Your task to perform on an android device: Search for a 36" x 48" whiteboard on Home Depot Image 0: 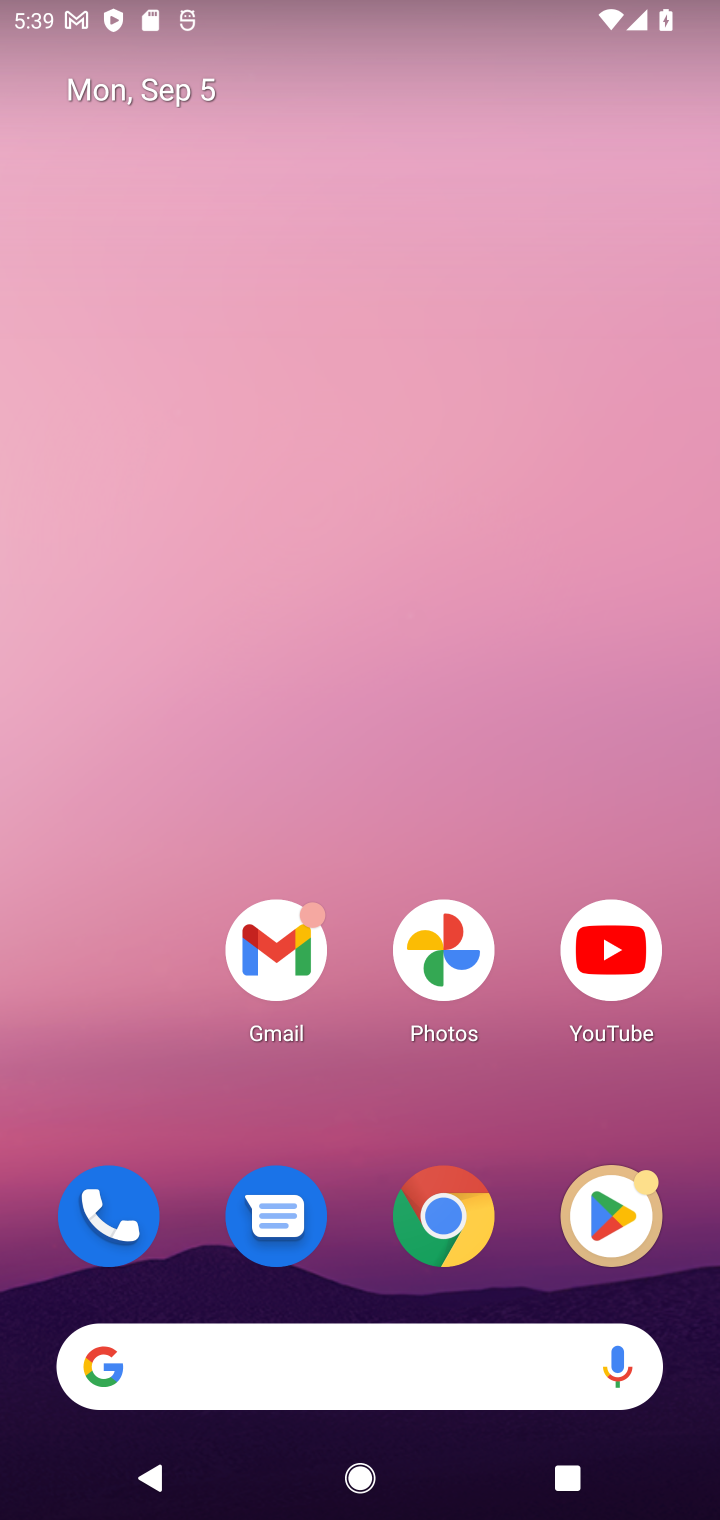
Step 0: click (462, 1183)
Your task to perform on an android device: Search for a 36" x 48" whiteboard on Home Depot Image 1: 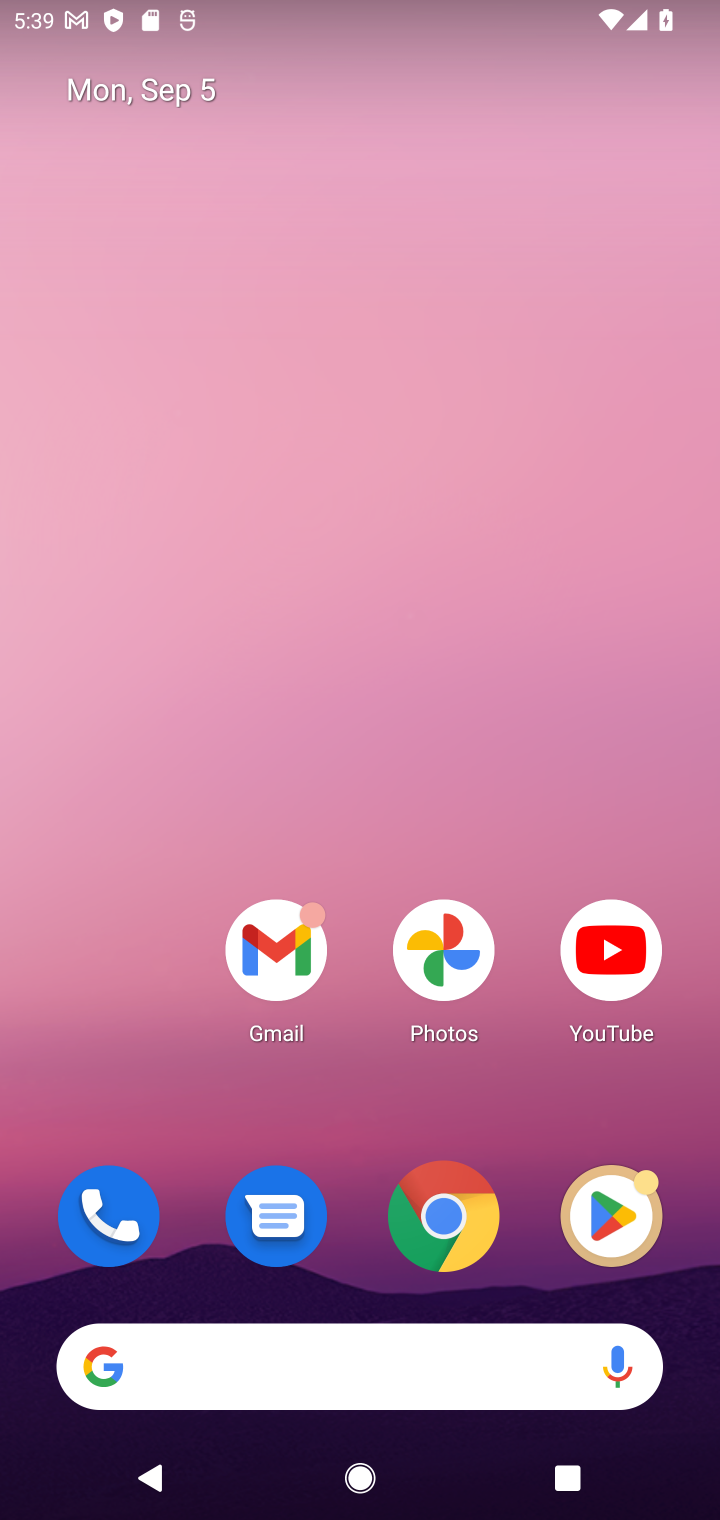
Step 1: click (445, 1209)
Your task to perform on an android device: Search for a 36" x 48" whiteboard on Home Depot Image 2: 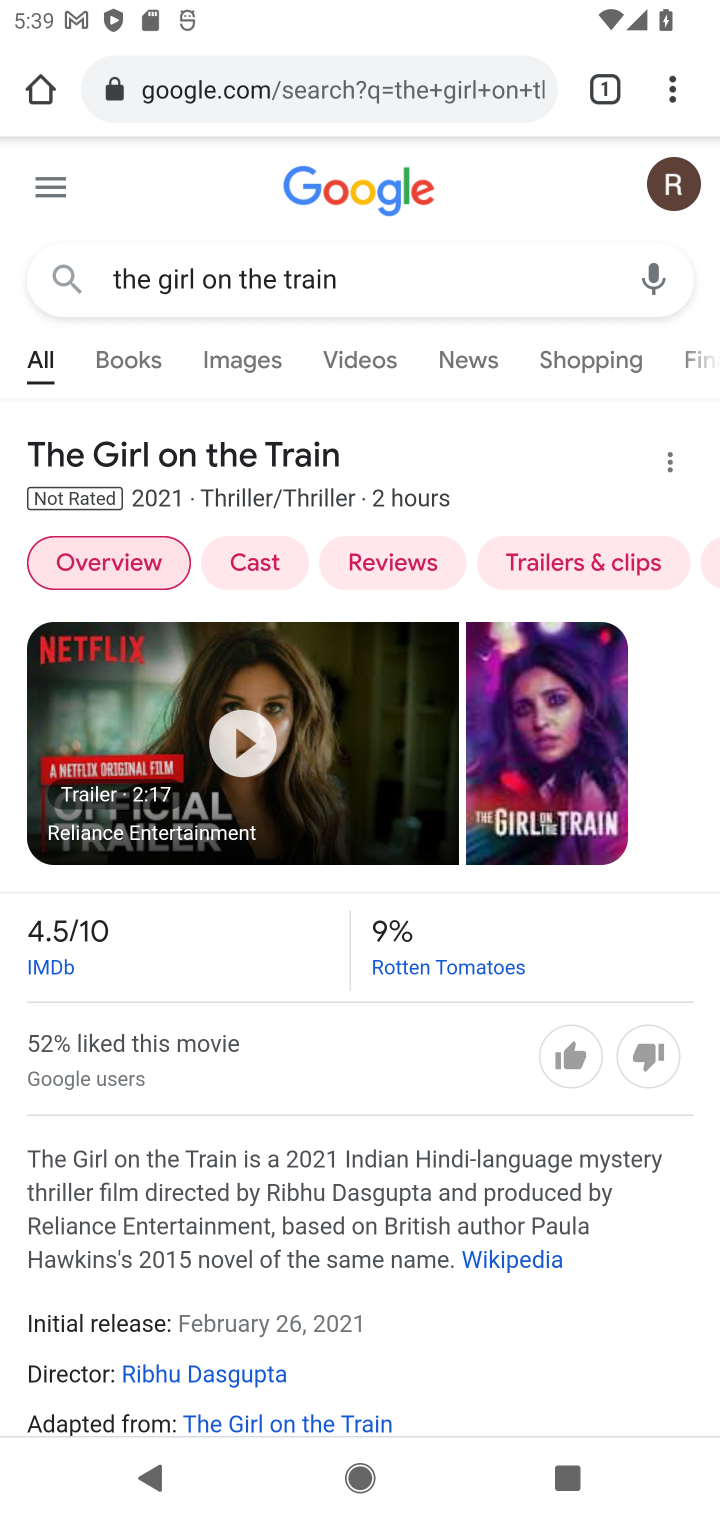
Step 2: click (388, 112)
Your task to perform on an android device: Search for a 36" x 48" whiteboard on Home Depot Image 3: 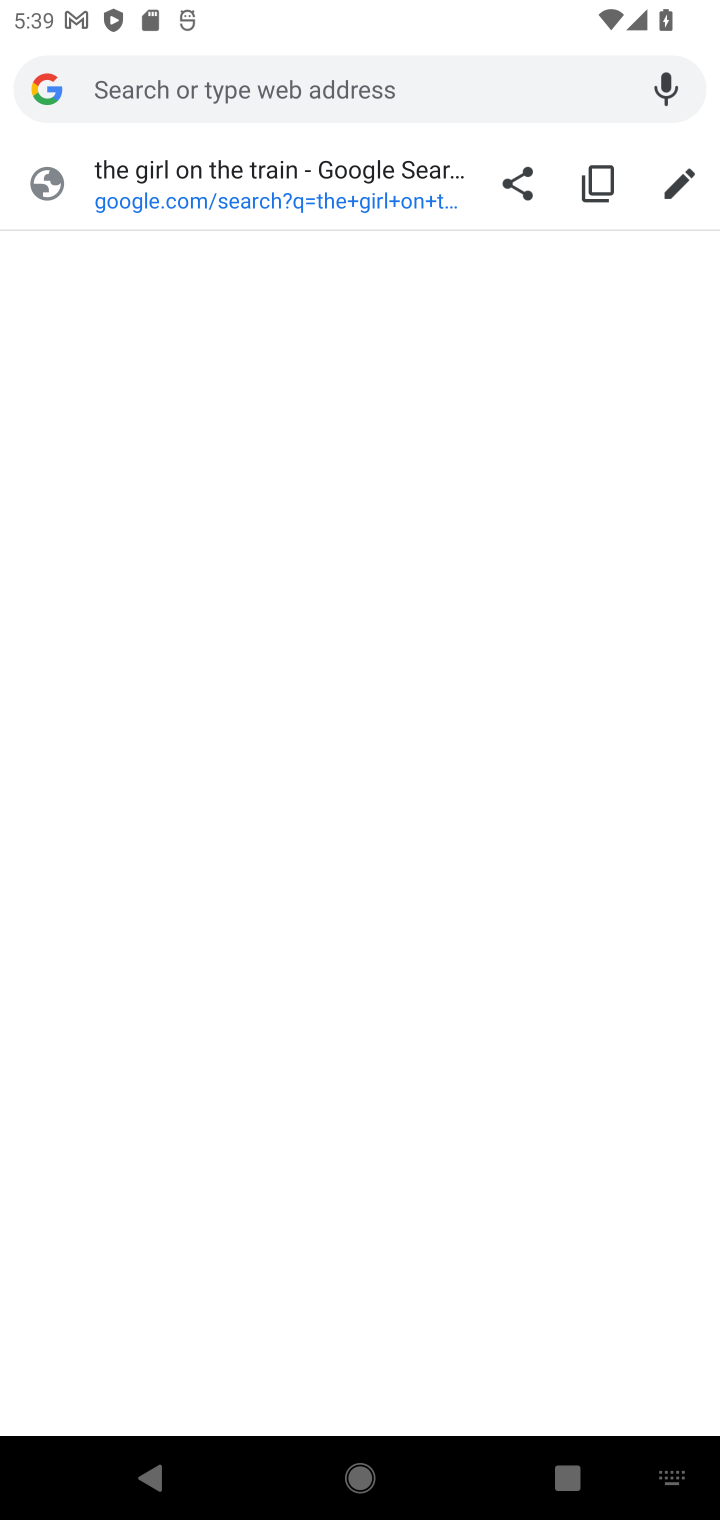
Step 3: type "home depot"
Your task to perform on an android device: Search for a 36" x 48" whiteboard on Home Depot Image 4: 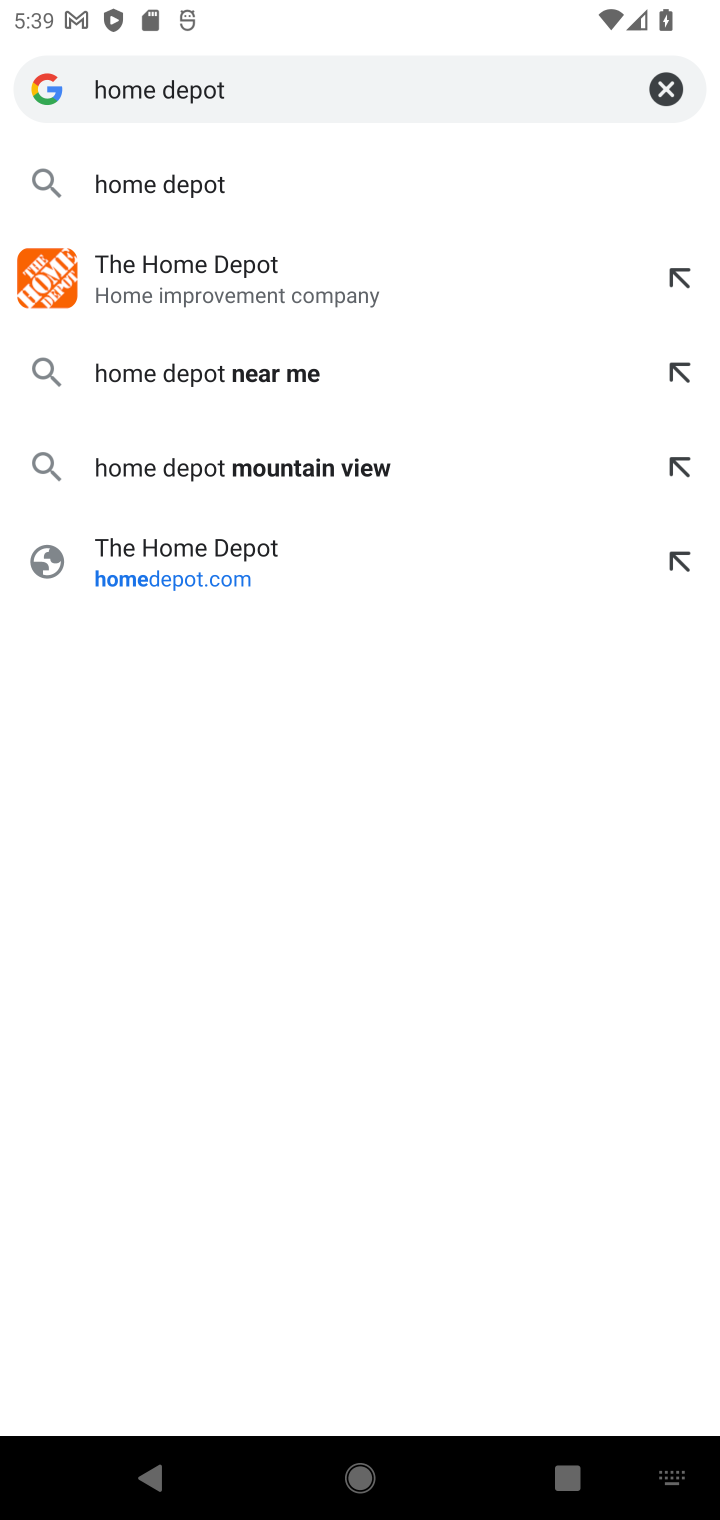
Step 4: click (306, 555)
Your task to perform on an android device: Search for a 36" x 48" whiteboard on Home Depot Image 5: 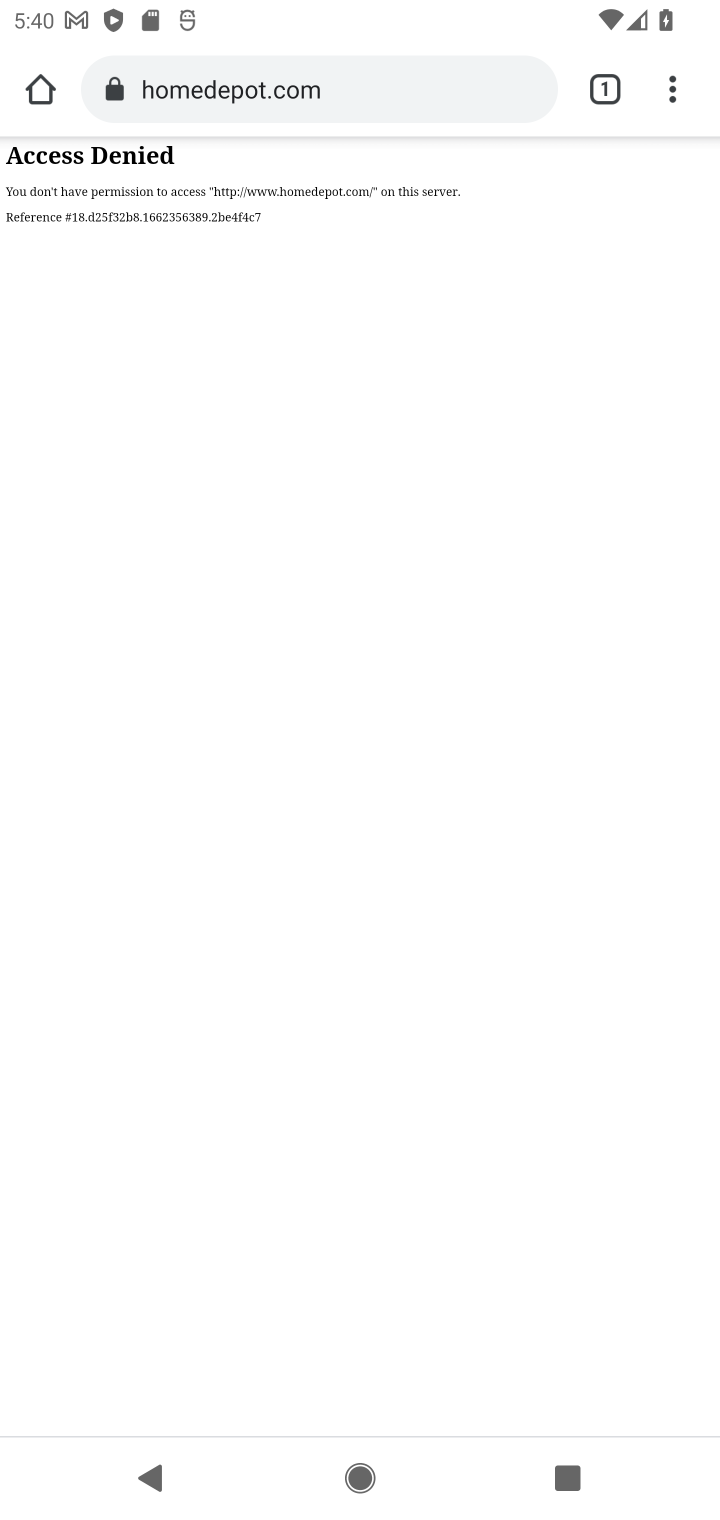
Step 5: task complete